Your task to perform on an android device: Search for vegetarian restaurants on Maps Image 0: 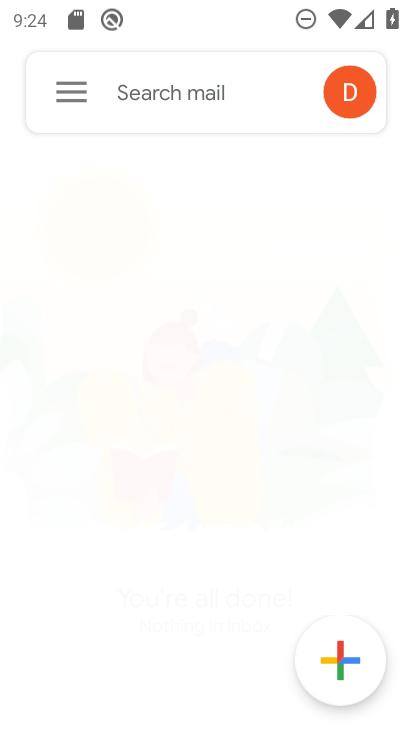
Step 0: press home button
Your task to perform on an android device: Search for vegetarian restaurants on Maps Image 1: 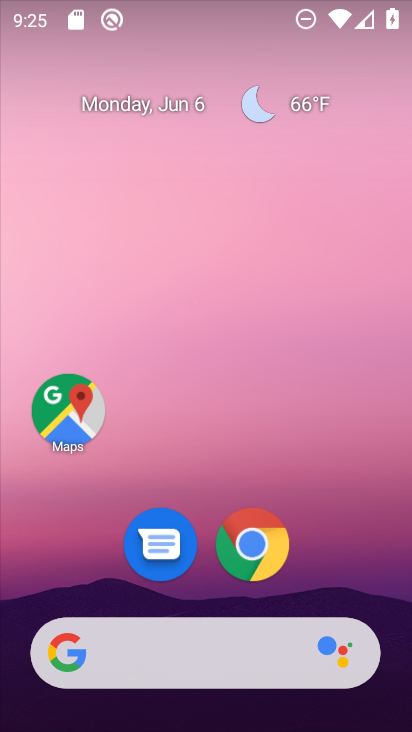
Step 1: drag from (208, 587) to (216, 239)
Your task to perform on an android device: Search for vegetarian restaurants on Maps Image 2: 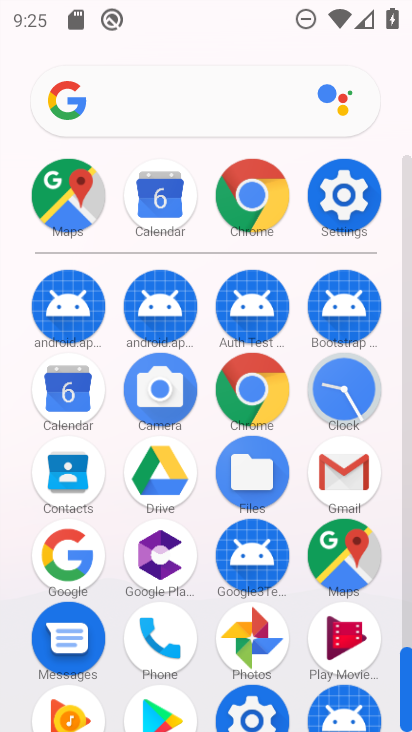
Step 2: click (345, 543)
Your task to perform on an android device: Search for vegetarian restaurants on Maps Image 3: 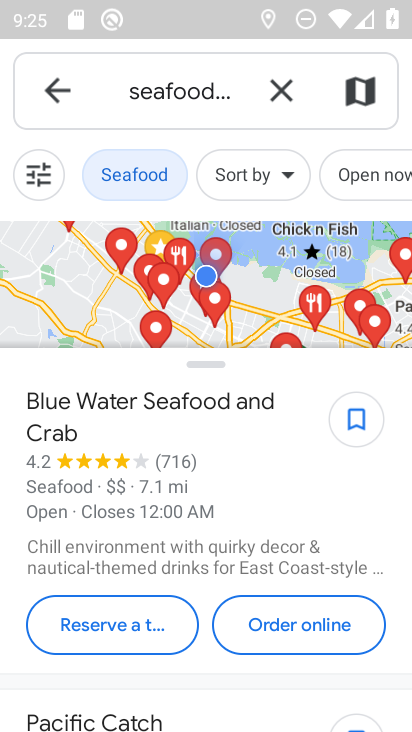
Step 3: click (288, 93)
Your task to perform on an android device: Search for vegetarian restaurants on Maps Image 4: 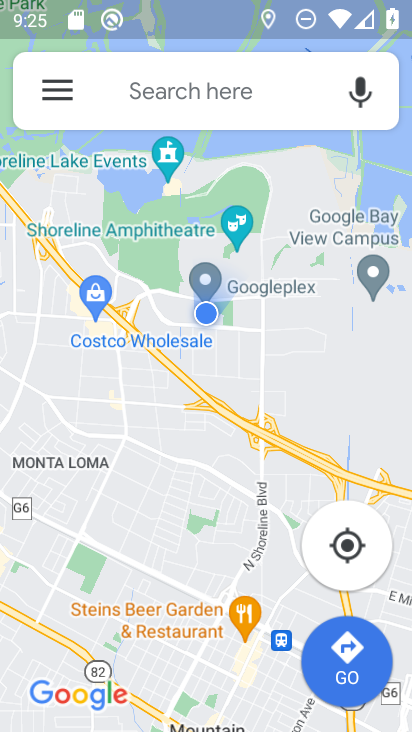
Step 4: click (209, 93)
Your task to perform on an android device: Search for vegetarian restaurants on Maps Image 5: 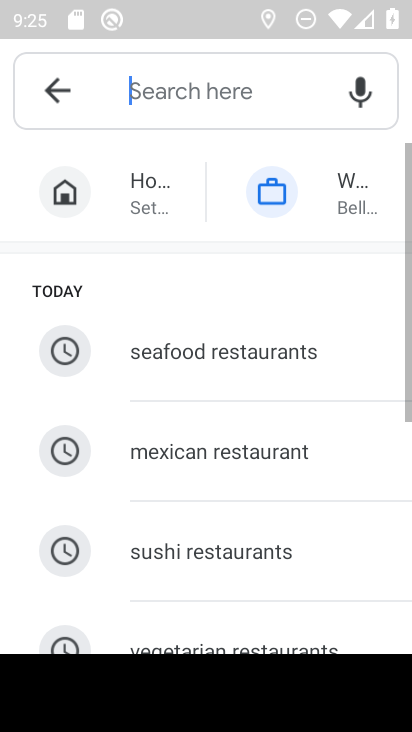
Step 5: type "vegetarian restaurants"
Your task to perform on an android device: Search for vegetarian restaurants on Maps Image 6: 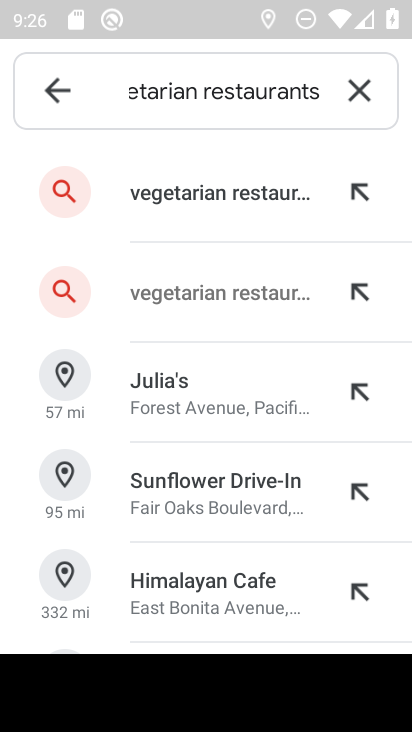
Step 6: click (191, 183)
Your task to perform on an android device: Search for vegetarian restaurants on Maps Image 7: 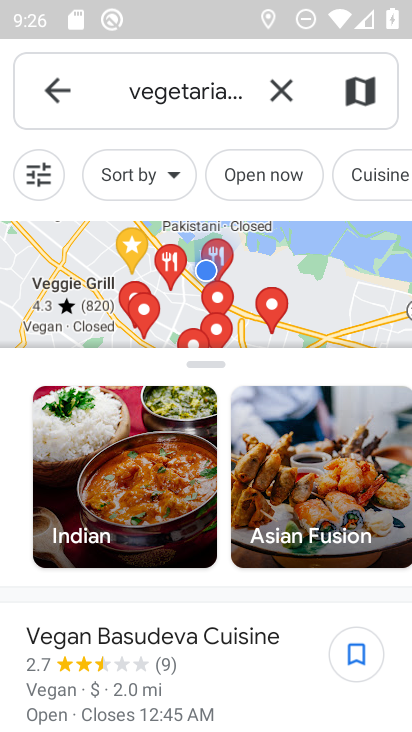
Step 7: task complete